Your task to perform on an android device: Search for sushi restaurants on Maps Image 0: 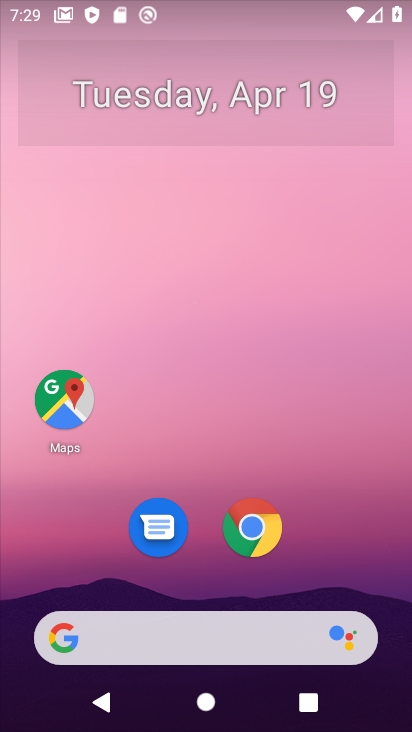
Step 0: drag from (376, 549) to (350, 154)
Your task to perform on an android device: Search for sushi restaurants on Maps Image 1: 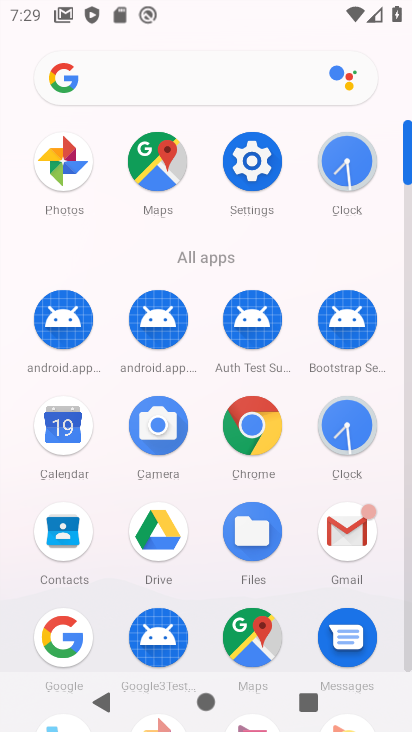
Step 1: click (252, 631)
Your task to perform on an android device: Search for sushi restaurants on Maps Image 2: 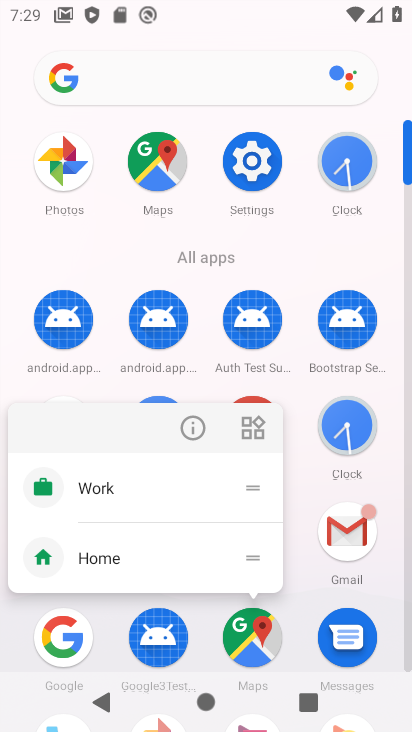
Step 2: click (247, 633)
Your task to perform on an android device: Search for sushi restaurants on Maps Image 3: 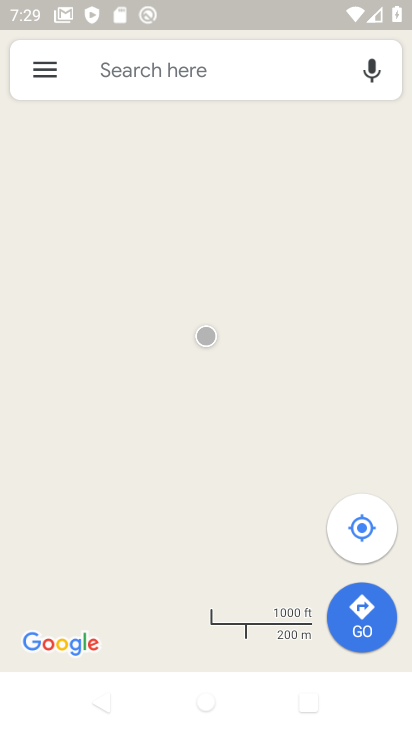
Step 3: click (147, 70)
Your task to perform on an android device: Search for sushi restaurants on Maps Image 4: 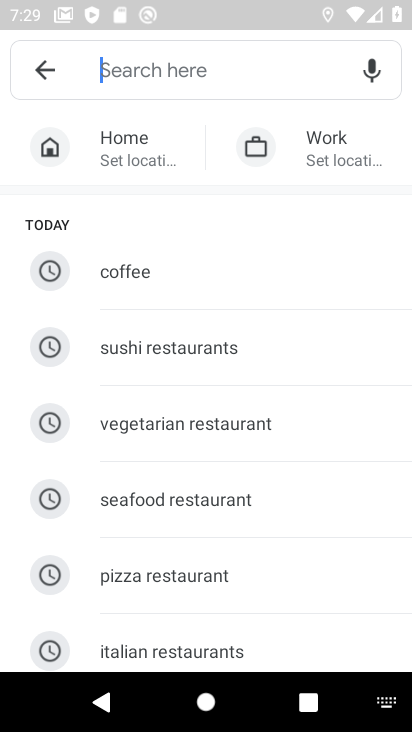
Step 4: type "sushi res"
Your task to perform on an android device: Search for sushi restaurants on Maps Image 5: 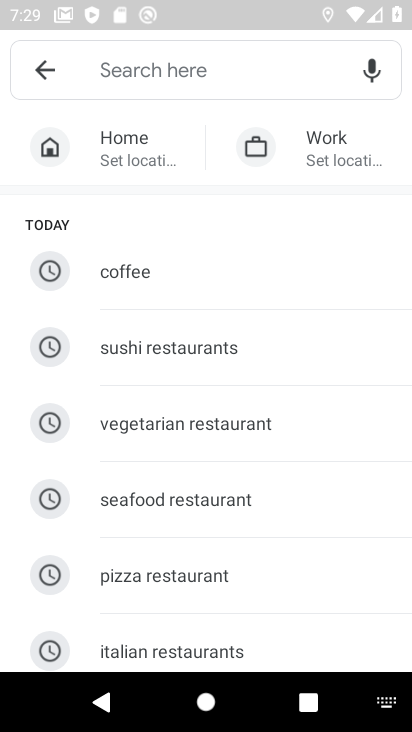
Step 5: click (217, 353)
Your task to perform on an android device: Search for sushi restaurants on Maps Image 6: 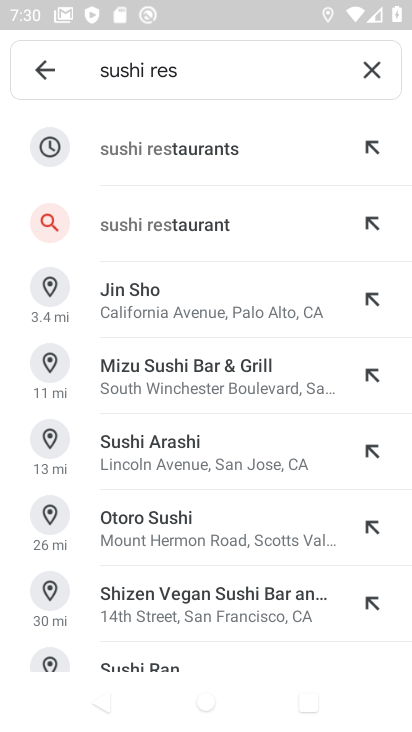
Step 6: click (174, 141)
Your task to perform on an android device: Search for sushi restaurants on Maps Image 7: 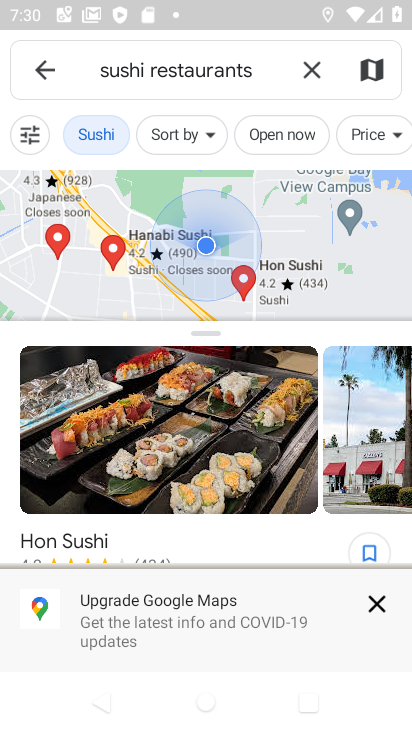
Step 7: task complete